Your task to perform on an android device: stop showing notifications on the lock screen Image 0: 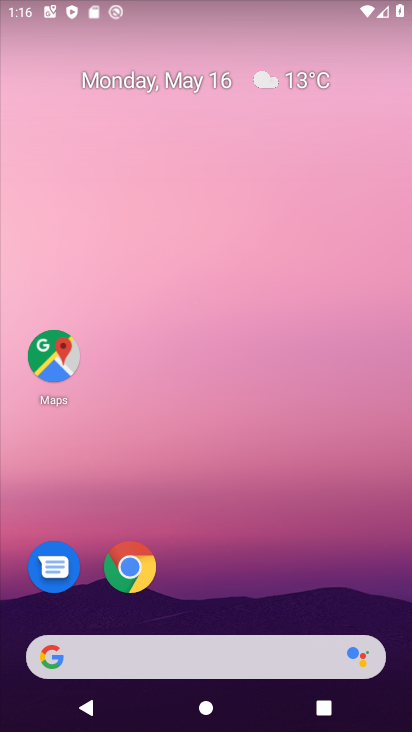
Step 0: drag from (142, 612) to (185, 107)
Your task to perform on an android device: stop showing notifications on the lock screen Image 1: 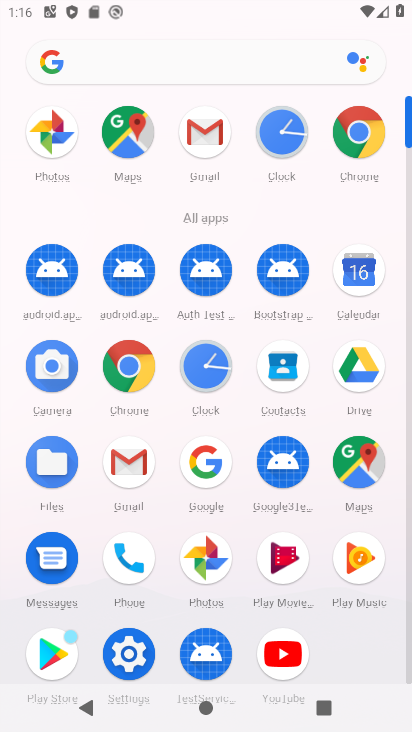
Step 1: click (126, 657)
Your task to perform on an android device: stop showing notifications on the lock screen Image 2: 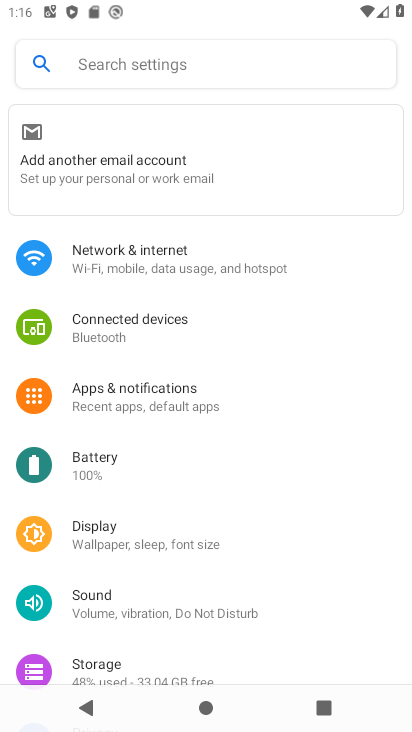
Step 2: drag from (183, 601) to (274, 307)
Your task to perform on an android device: stop showing notifications on the lock screen Image 3: 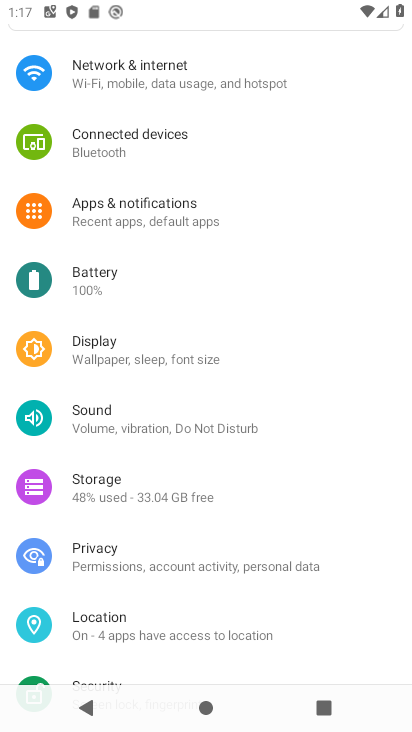
Step 3: drag from (159, 588) to (218, 586)
Your task to perform on an android device: stop showing notifications on the lock screen Image 4: 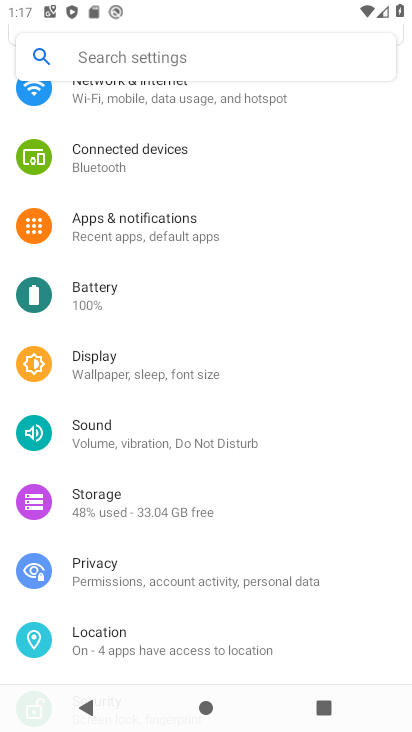
Step 4: click (204, 237)
Your task to perform on an android device: stop showing notifications on the lock screen Image 5: 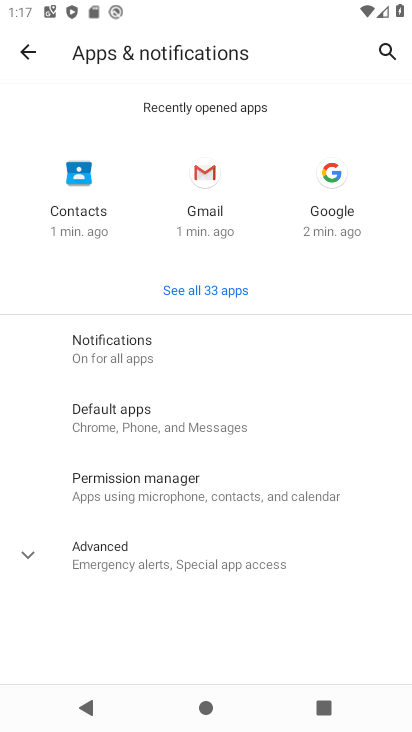
Step 5: click (171, 348)
Your task to perform on an android device: stop showing notifications on the lock screen Image 6: 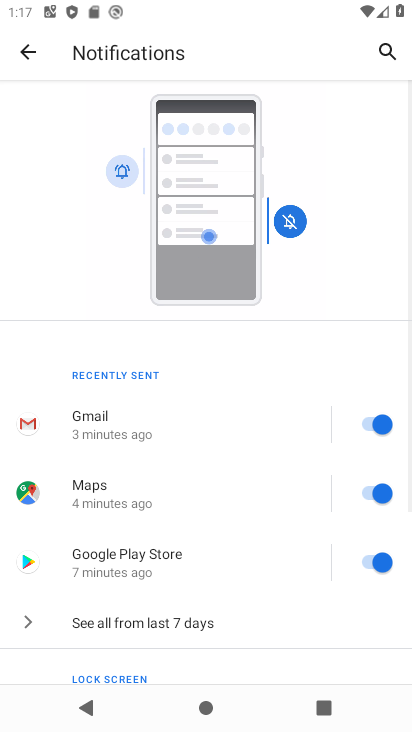
Step 6: drag from (216, 634) to (297, 285)
Your task to perform on an android device: stop showing notifications on the lock screen Image 7: 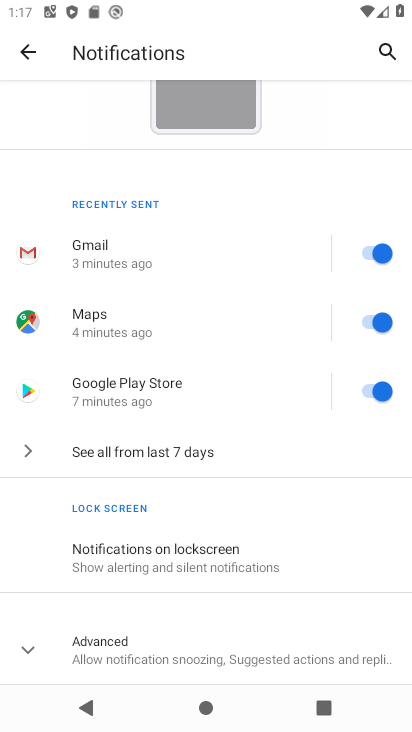
Step 7: click (254, 575)
Your task to perform on an android device: stop showing notifications on the lock screen Image 8: 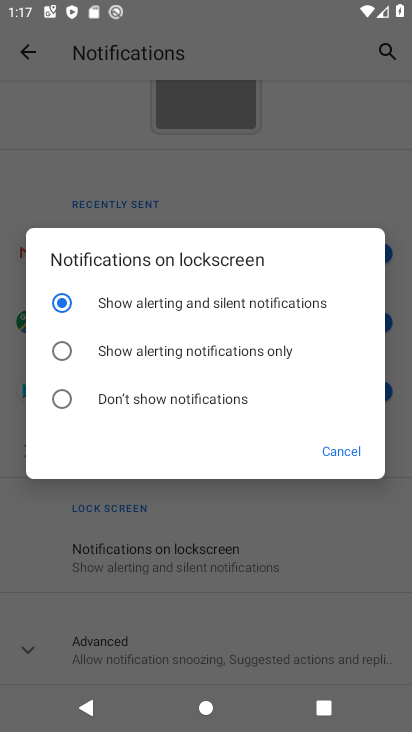
Step 8: click (232, 401)
Your task to perform on an android device: stop showing notifications on the lock screen Image 9: 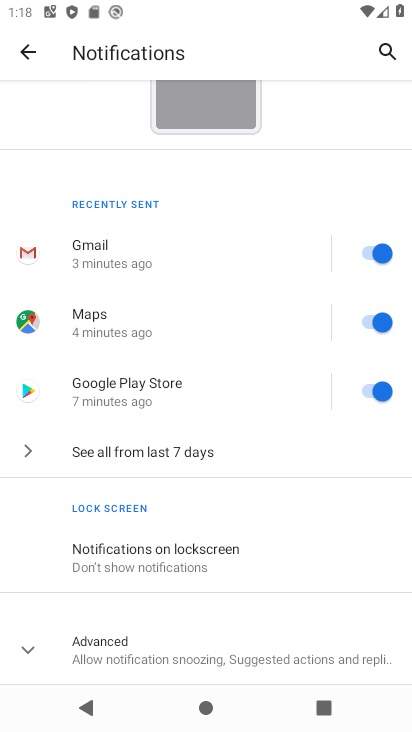
Step 9: task complete